Your task to perform on an android device: Open the calendar app, open the side menu, and click the "Day" option Image 0: 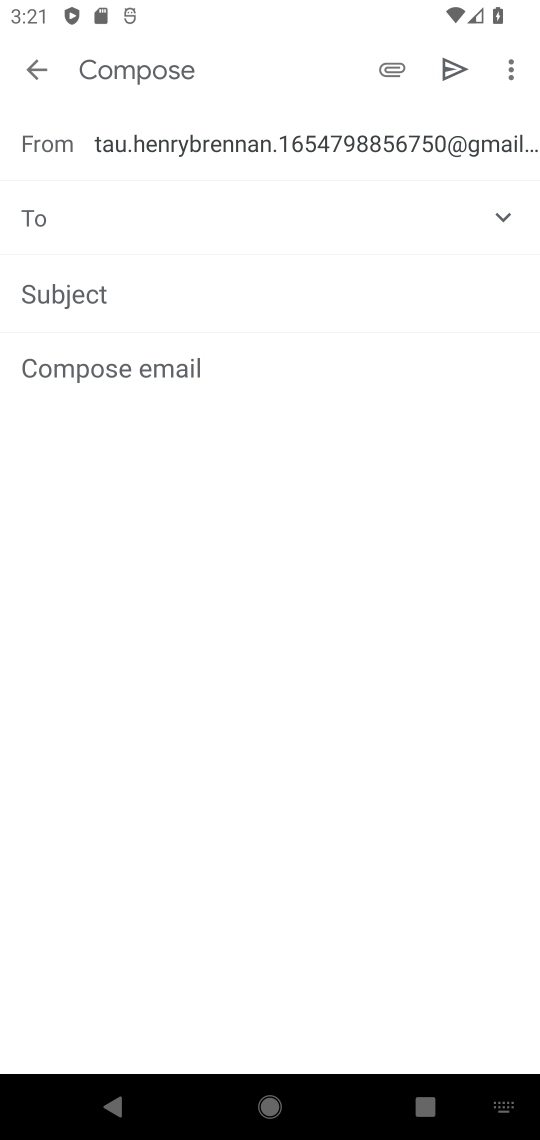
Step 0: press home button
Your task to perform on an android device: Open the calendar app, open the side menu, and click the "Day" option Image 1: 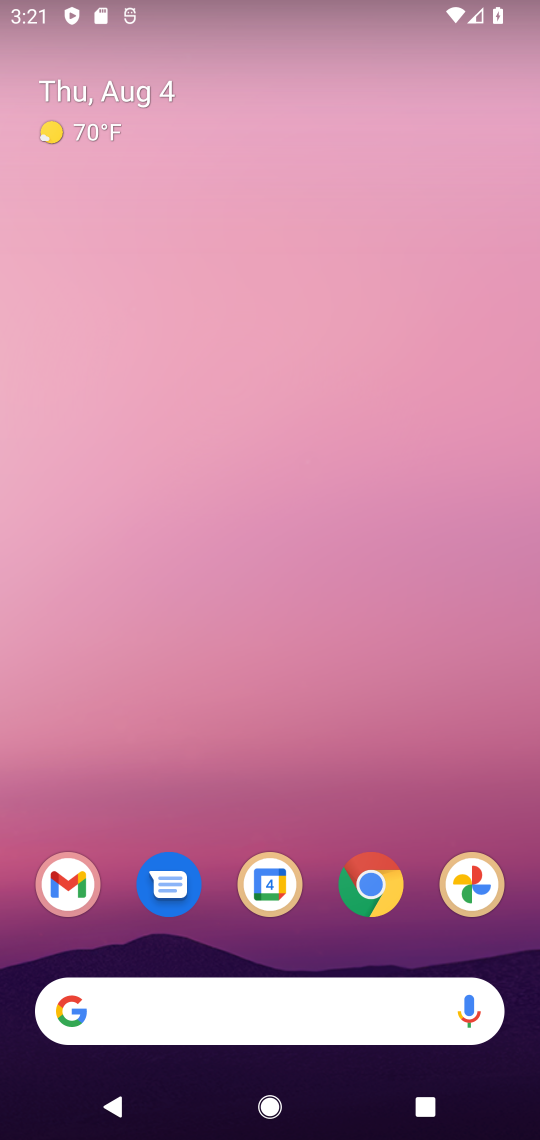
Step 1: drag from (246, 941) to (285, 306)
Your task to perform on an android device: Open the calendar app, open the side menu, and click the "Day" option Image 2: 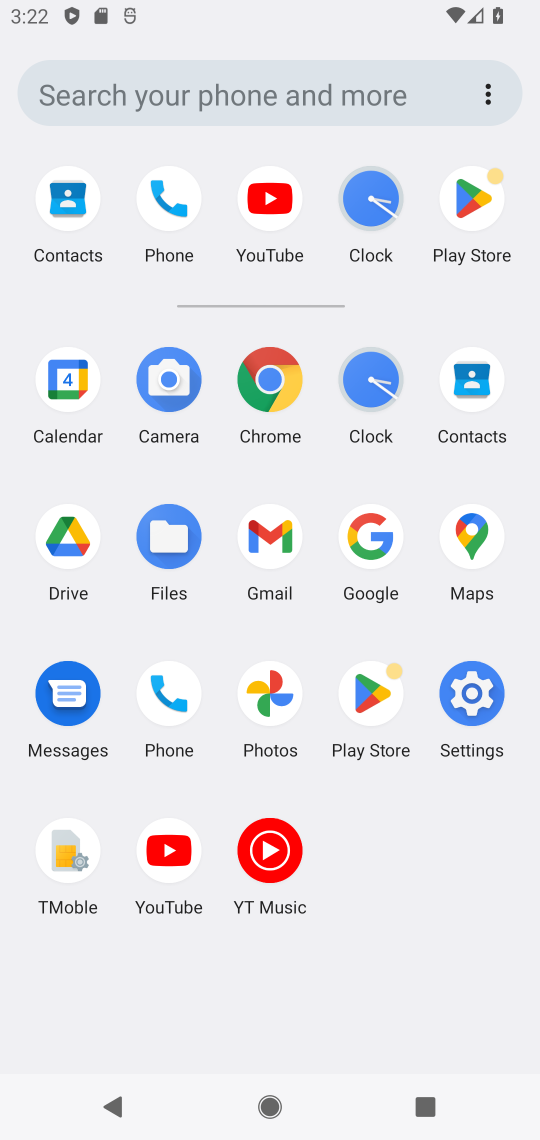
Step 2: click (76, 368)
Your task to perform on an android device: Open the calendar app, open the side menu, and click the "Day" option Image 3: 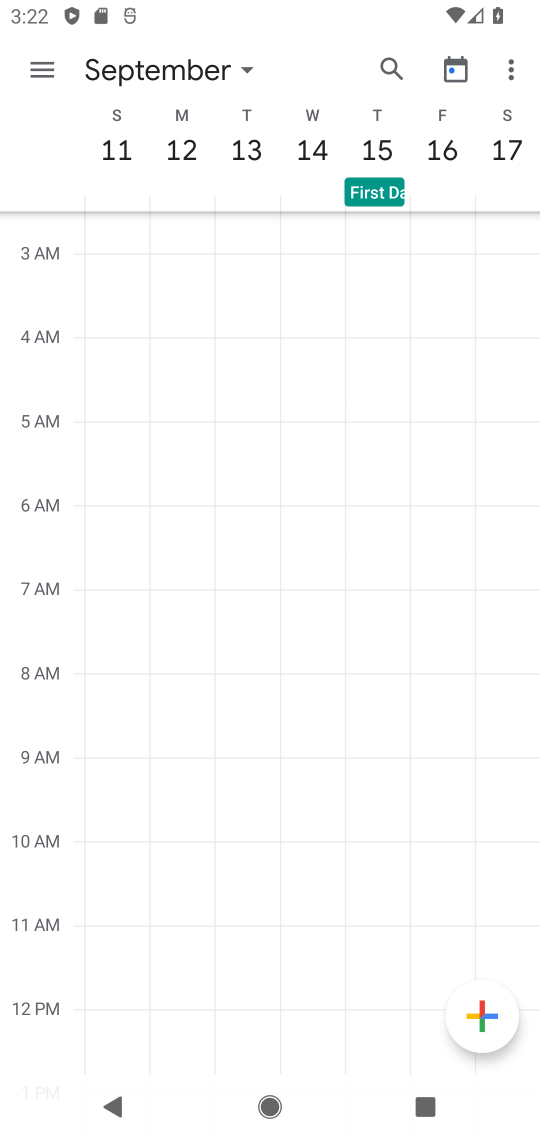
Step 3: click (48, 66)
Your task to perform on an android device: Open the calendar app, open the side menu, and click the "Day" option Image 4: 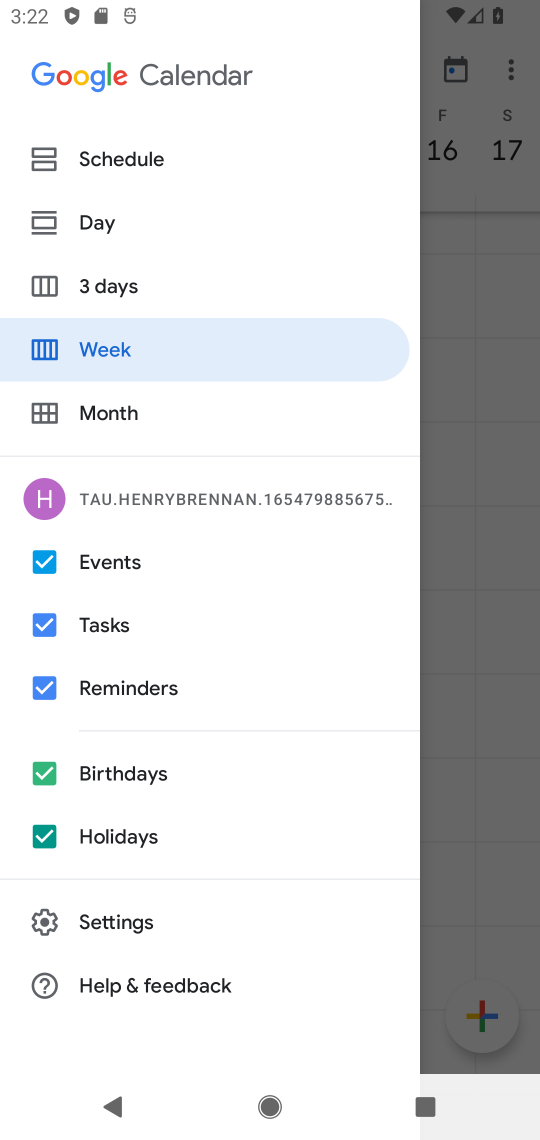
Step 4: click (95, 208)
Your task to perform on an android device: Open the calendar app, open the side menu, and click the "Day" option Image 5: 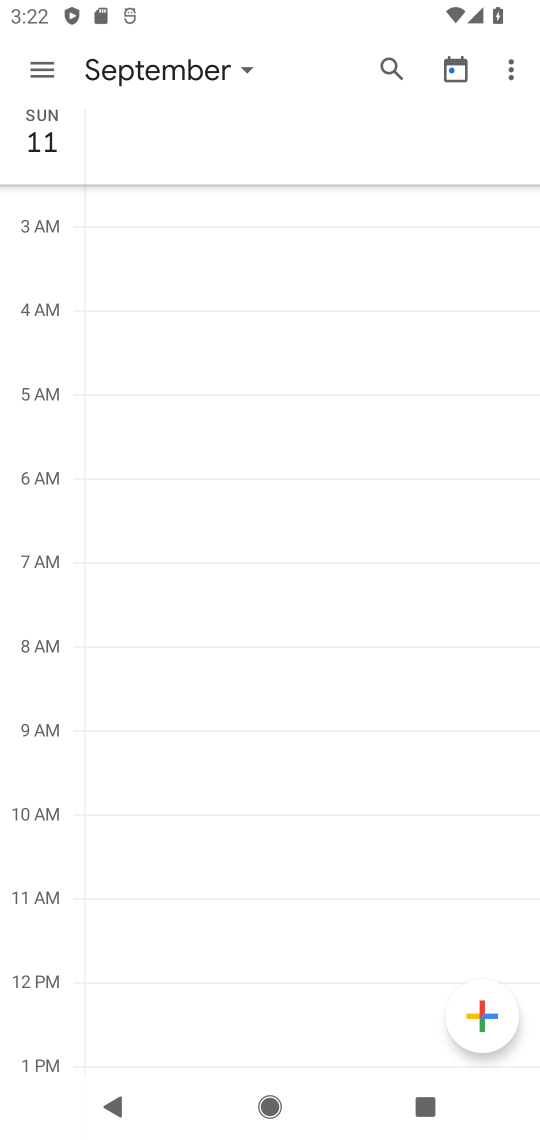
Step 5: task complete